Your task to perform on an android device: turn pop-ups off in chrome Image 0: 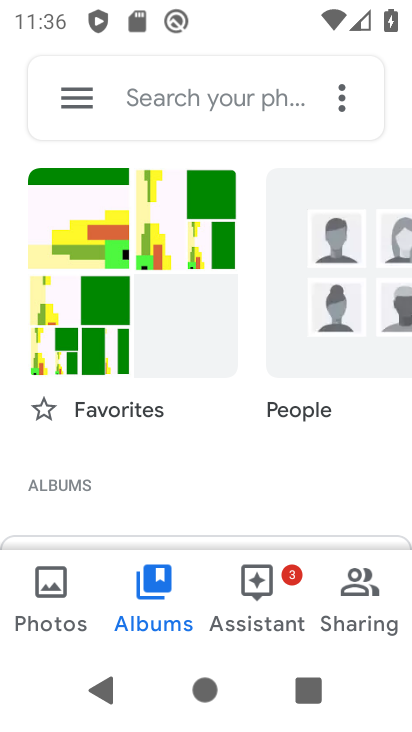
Step 0: press home button
Your task to perform on an android device: turn pop-ups off in chrome Image 1: 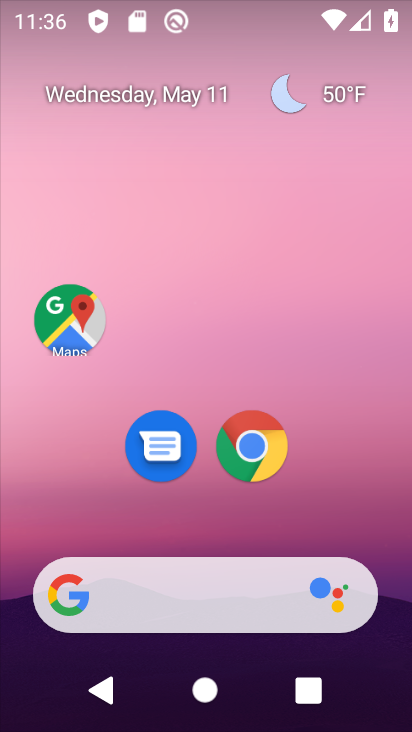
Step 1: click (255, 466)
Your task to perform on an android device: turn pop-ups off in chrome Image 2: 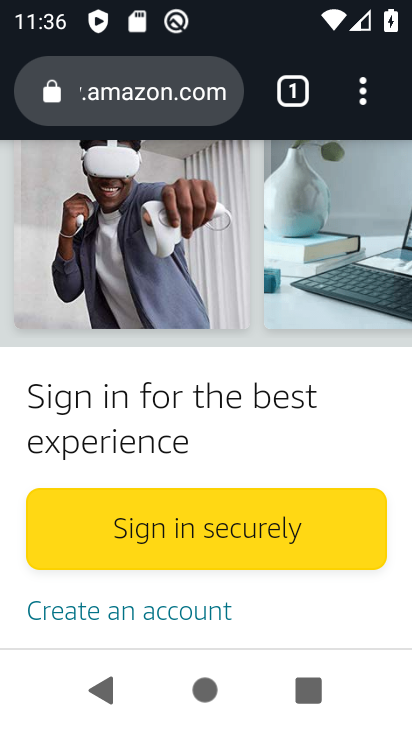
Step 2: click (370, 97)
Your task to perform on an android device: turn pop-ups off in chrome Image 3: 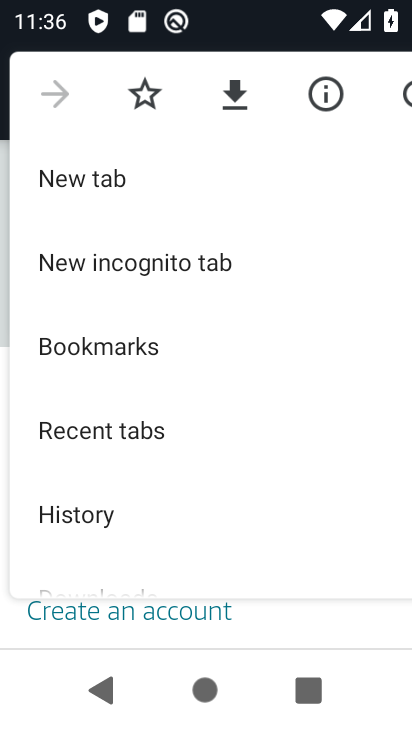
Step 3: drag from (208, 438) to (204, 174)
Your task to perform on an android device: turn pop-ups off in chrome Image 4: 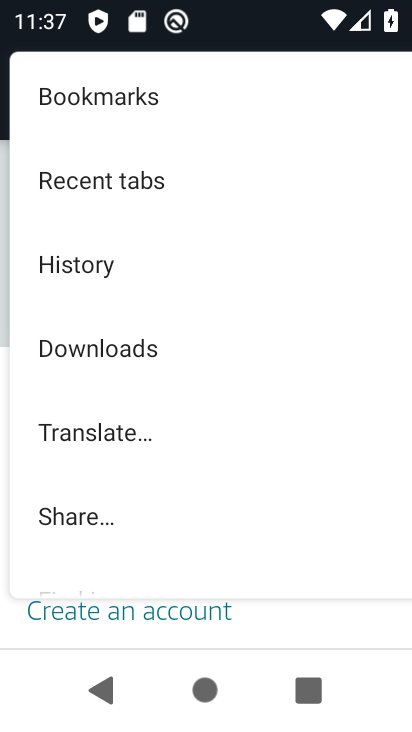
Step 4: drag from (184, 498) to (188, 237)
Your task to perform on an android device: turn pop-ups off in chrome Image 5: 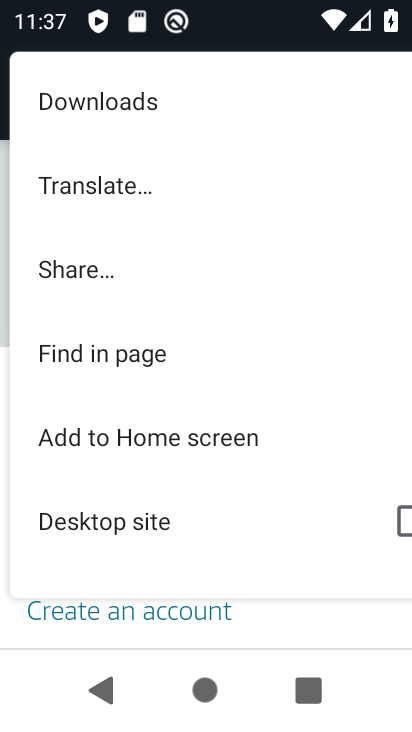
Step 5: drag from (221, 517) to (231, 248)
Your task to perform on an android device: turn pop-ups off in chrome Image 6: 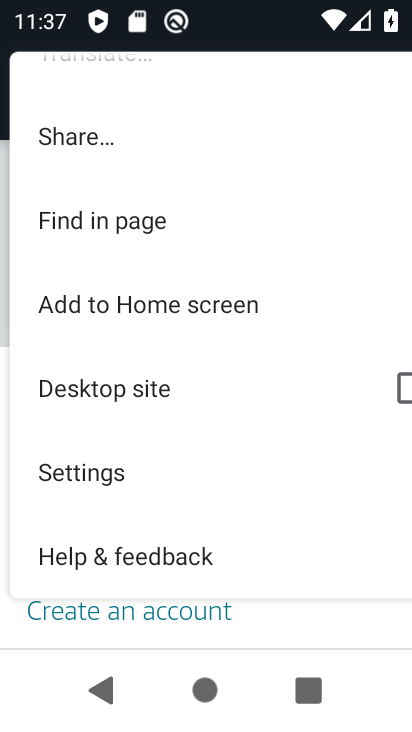
Step 6: click (135, 467)
Your task to perform on an android device: turn pop-ups off in chrome Image 7: 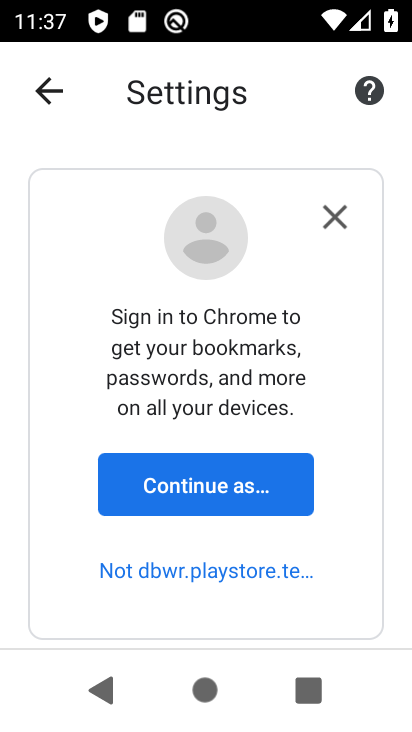
Step 7: click (145, 485)
Your task to perform on an android device: turn pop-ups off in chrome Image 8: 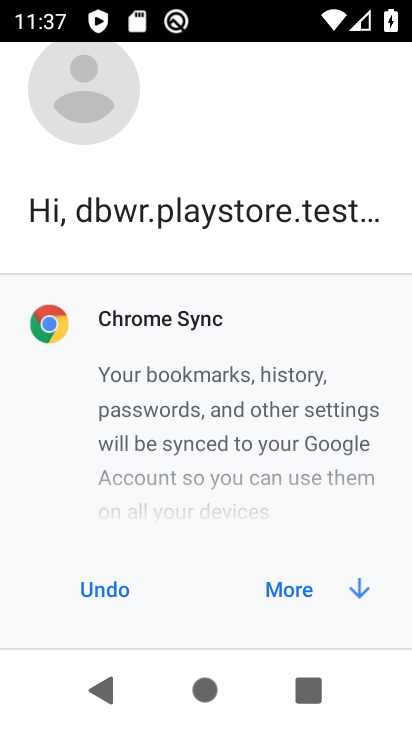
Step 8: click (287, 585)
Your task to perform on an android device: turn pop-ups off in chrome Image 9: 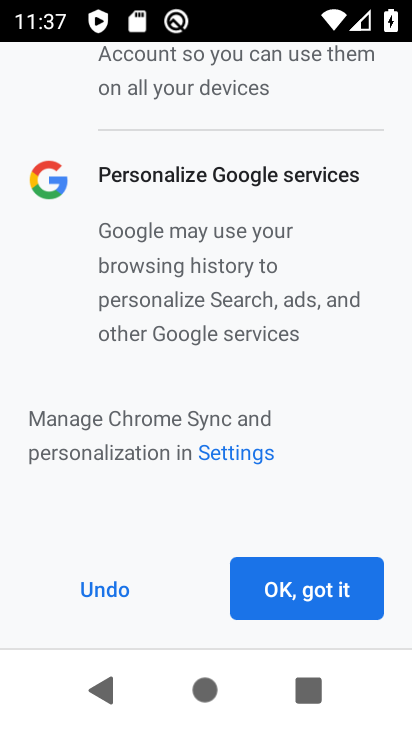
Step 9: click (288, 587)
Your task to perform on an android device: turn pop-ups off in chrome Image 10: 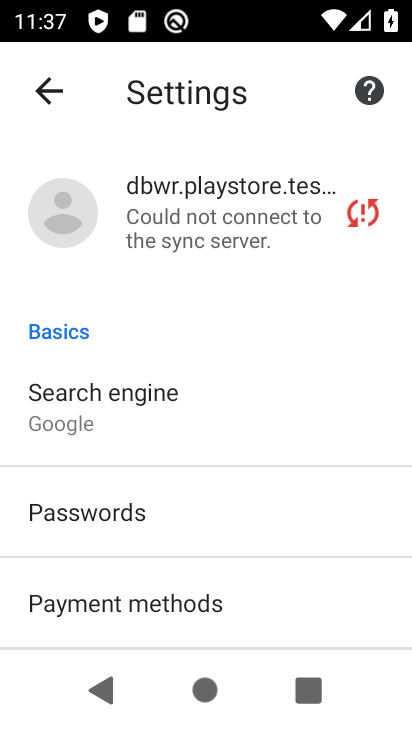
Step 10: drag from (319, 517) to (337, 227)
Your task to perform on an android device: turn pop-ups off in chrome Image 11: 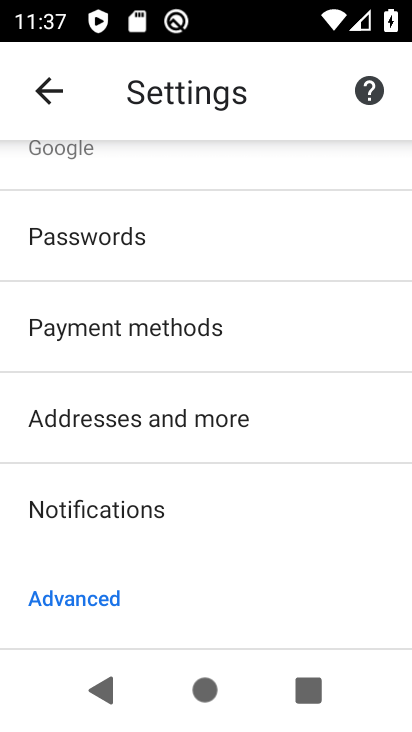
Step 11: drag from (278, 519) to (277, 283)
Your task to perform on an android device: turn pop-ups off in chrome Image 12: 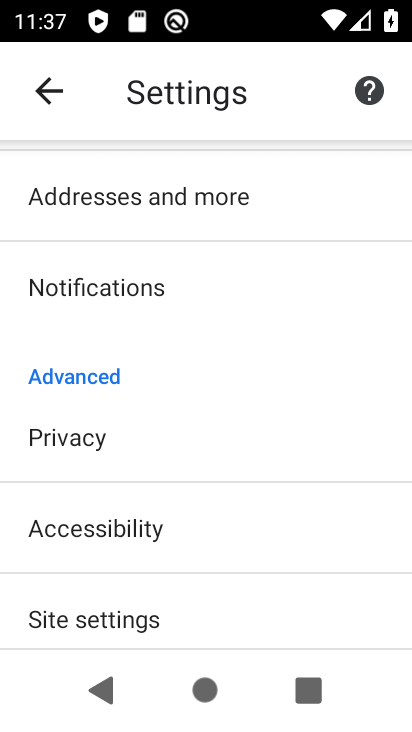
Step 12: click (190, 604)
Your task to perform on an android device: turn pop-ups off in chrome Image 13: 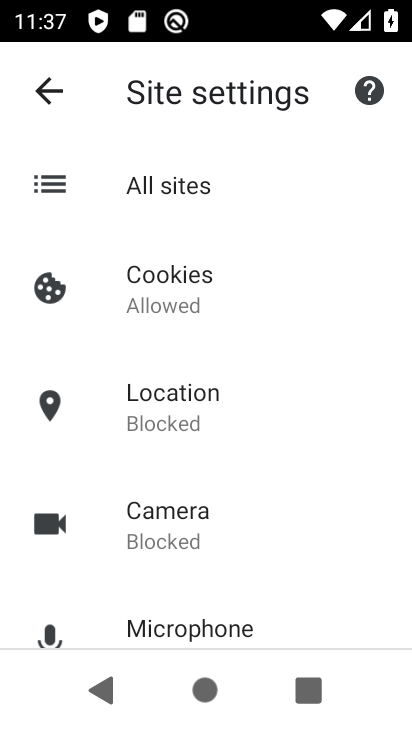
Step 13: drag from (267, 547) to (292, 245)
Your task to perform on an android device: turn pop-ups off in chrome Image 14: 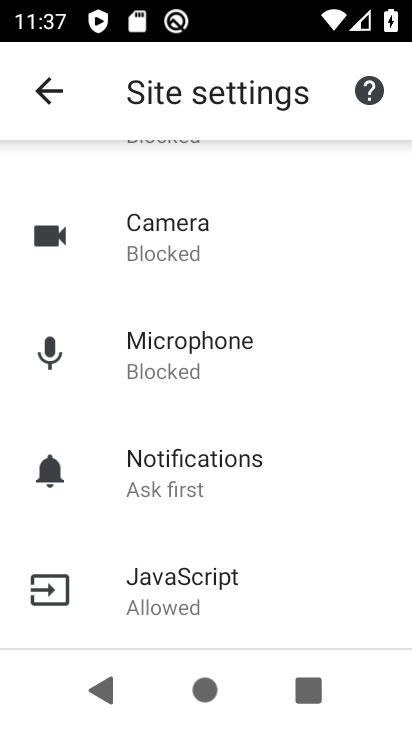
Step 14: drag from (261, 527) to (287, 213)
Your task to perform on an android device: turn pop-ups off in chrome Image 15: 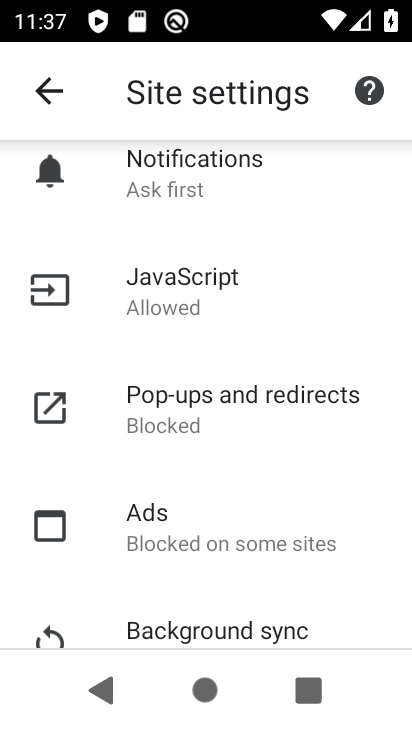
Step 15: click (238, 390)
Your task to perform on an android device: turn pop-ups off in chrome Image 16: 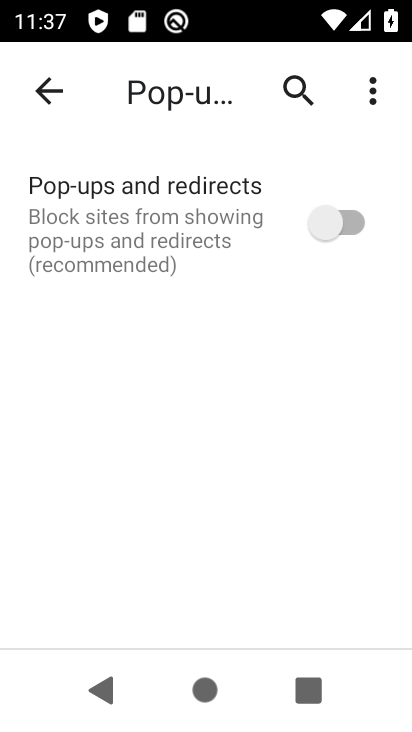
Step 16: task complete